Your task to perform on an android device: Open Google Chrome and click the shortcut for Amazon.com Image 0: 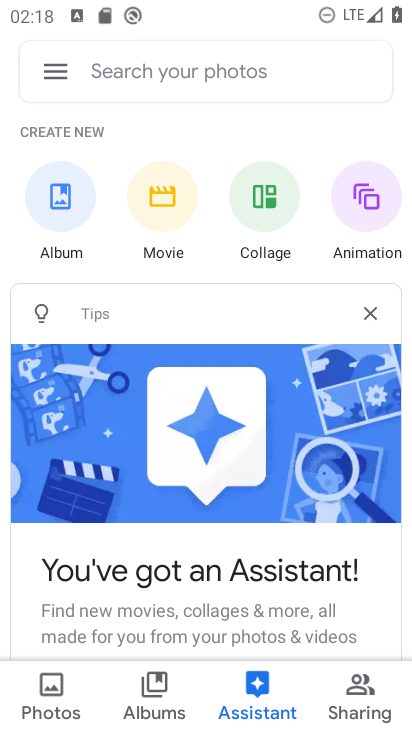
Step 0: press home button
Your task to perform on an android device: Open Google Chrome and click the shortcut for Amazon.com Image 1: 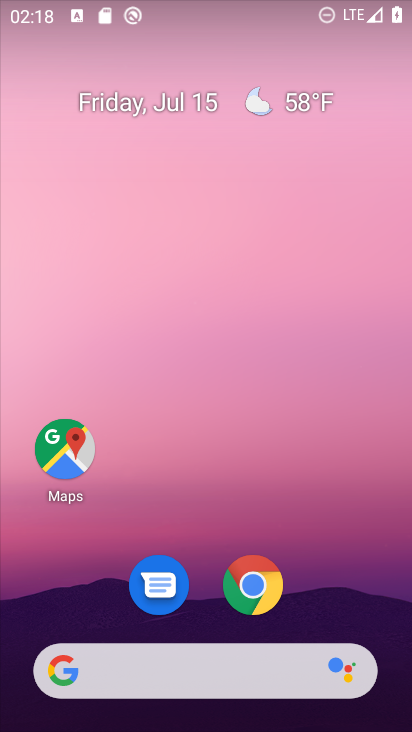
Step 1: click (262, 594)
Your task to perform on an android device: Open Google Chrome and click the shortcut for Amazon.com Image 2: 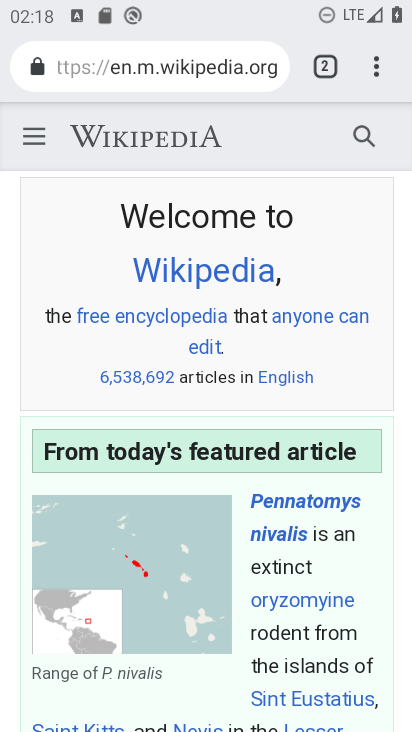
Step 2: click (377, 69)
Your task to perform on an android device: Open Google Chrome and click the shortcut for Amazon.com Image 3: 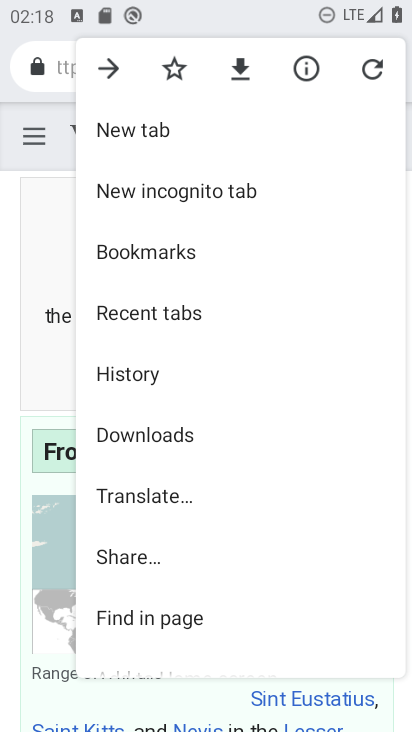
Step 3: click (285, 128)
Your task to perform on an android device: Open Google Chrome and click the shortcut for Amazon.com Image 4: 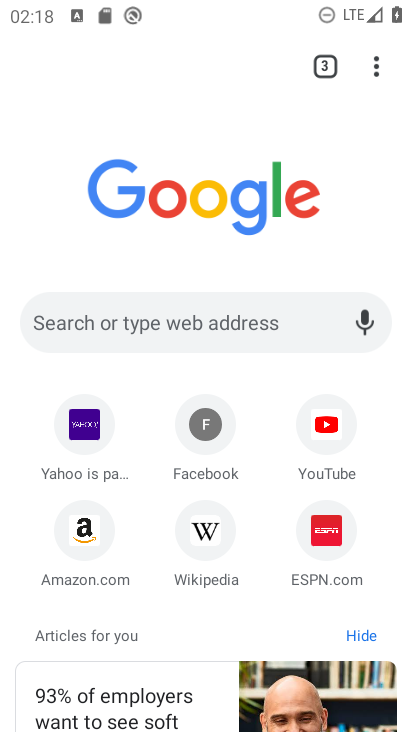
Step 4: click (88, 528)
Your task to perform on an android device: Open Google Chrome and click the shortcut for Amazon.com Image 5: 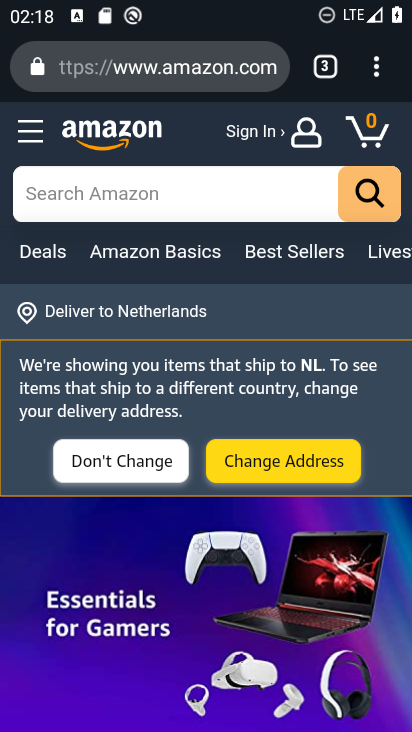
Step 5: task complete